Your task to perform on an android device: change the clock display to analog Image 0: 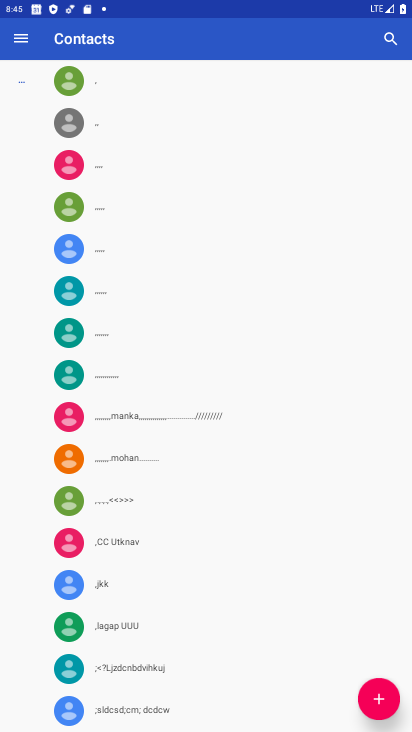
Step 0: press home button
Your task to perform on an android device: change the clock display to analog Image 1: 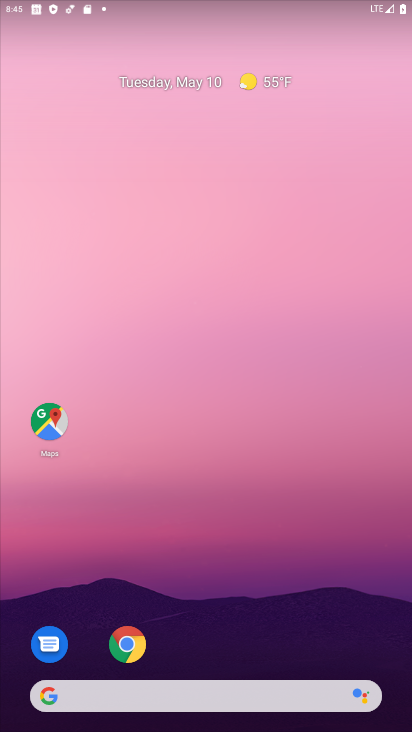
Step 1: drag from (266, 554) to (203, 121)
Your task to perform on an android device: change the clock display to analog Image 2: 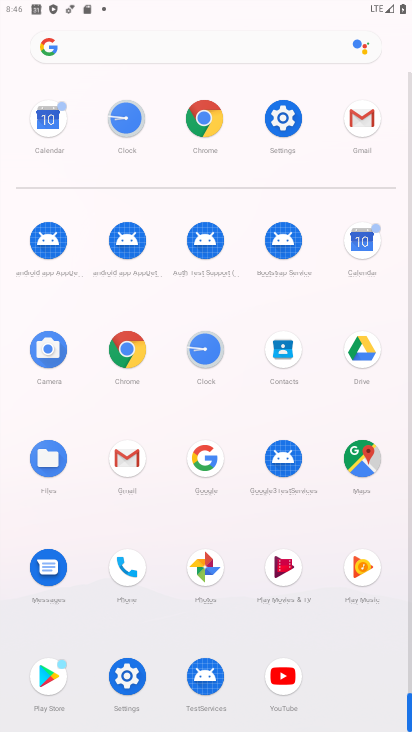
Step 2: click (208, 340)
Your task to perform on an android device: change the clock display to analog Image 3: 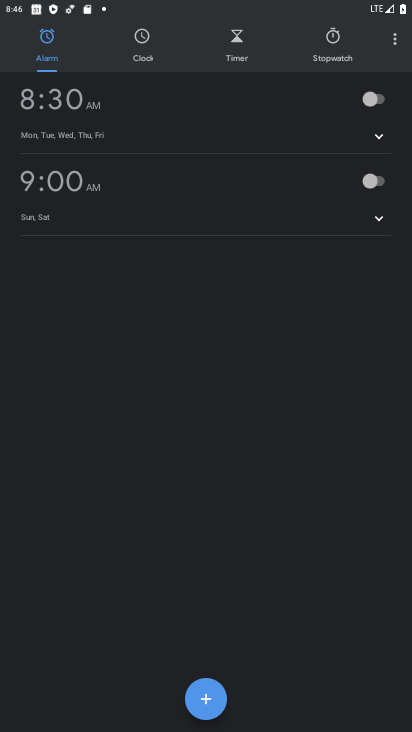
Step 3: click (409, 40)
Your task to perform on an android device: change the clock display to analog Image 4: 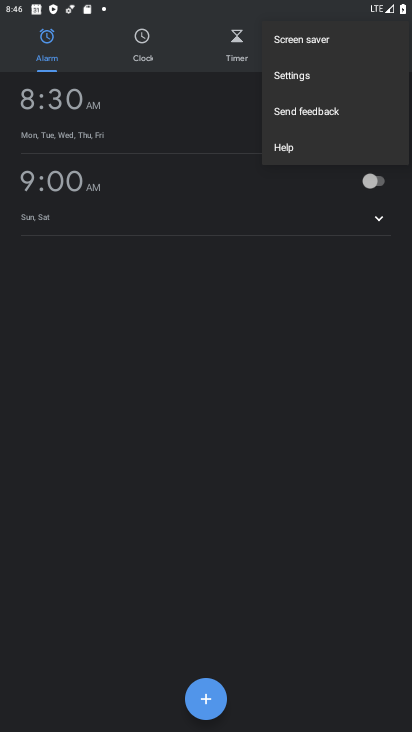
Step 4: click (310, 74)
Your task to perform on an android device: change the clock display to analog Image 5: 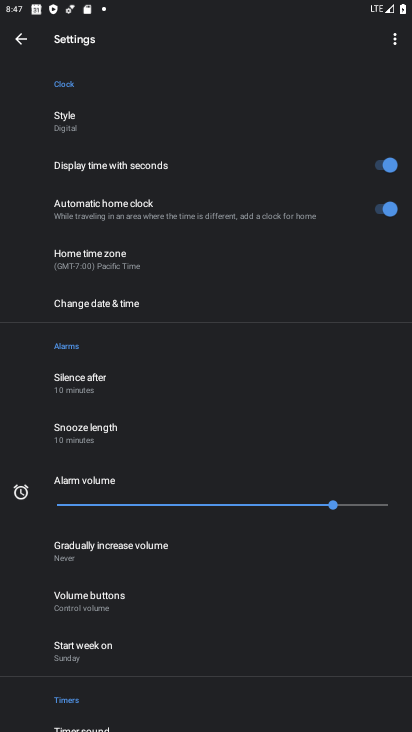
Step 5: click (113, 125)
Your task to perform on an android device: change the clock display to analog Image 6: 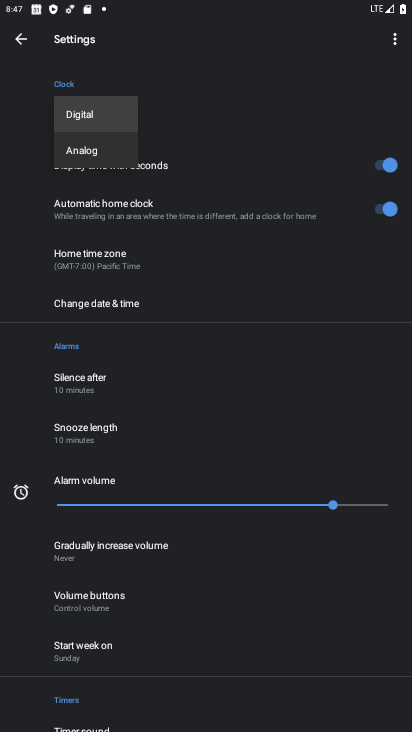
Step 6: click (111, 150)
Your task to perform on an android device: change the clock display to analog Image 7: 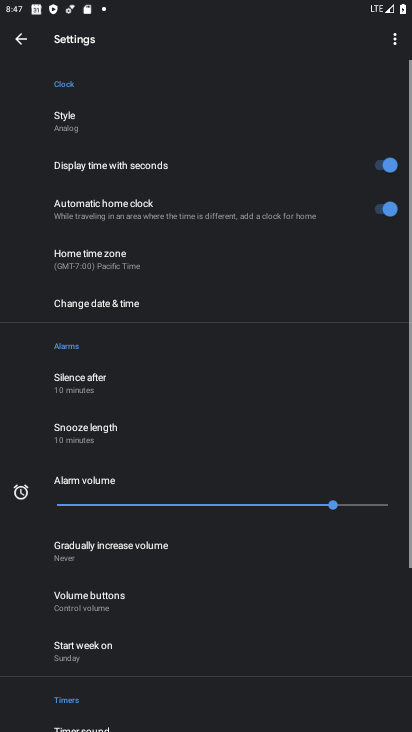
Step 7: task complete